Your task to perform on an android device: change the clock display to show seconds Image 0: 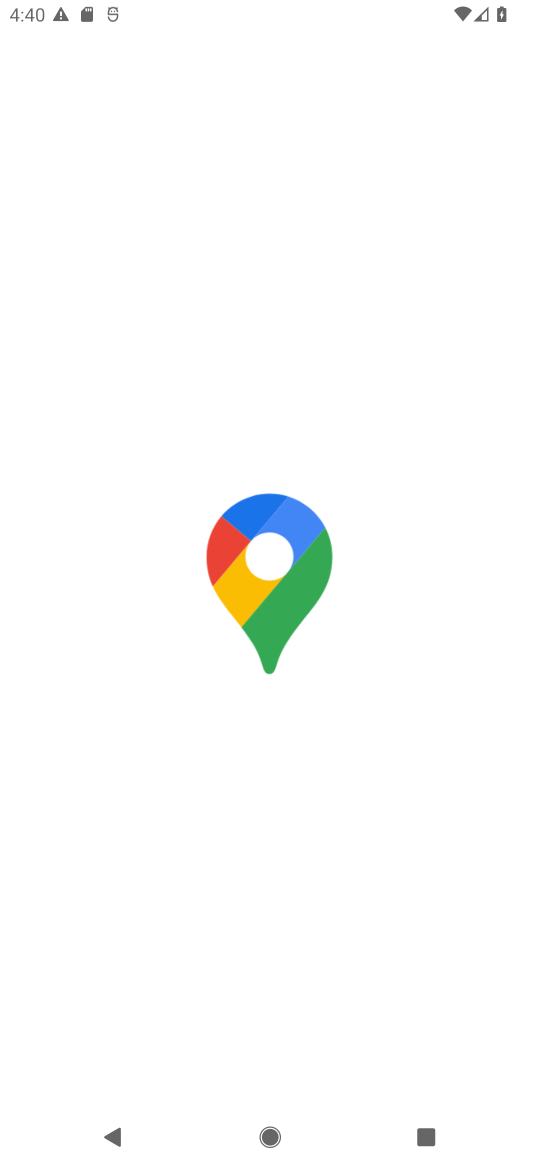
Step 0: press home button
Your task to perform on an android device: change the clock display to show seconds Image 1: 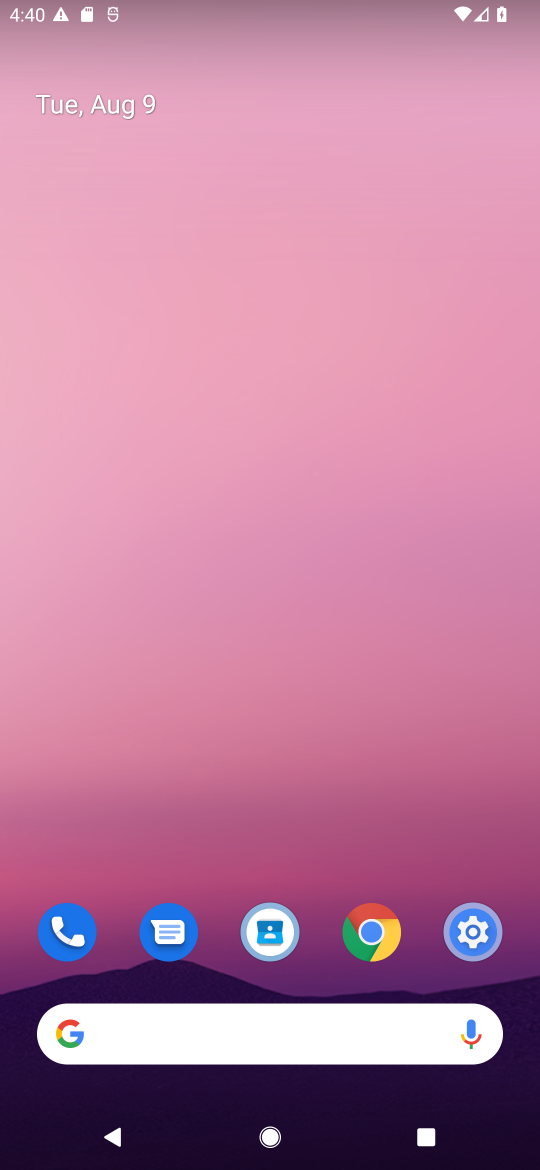
Step 1: drag from (234, 991) to (304, 56)
Your task to perform on an android device: change the clock display to show seconds Image 2: 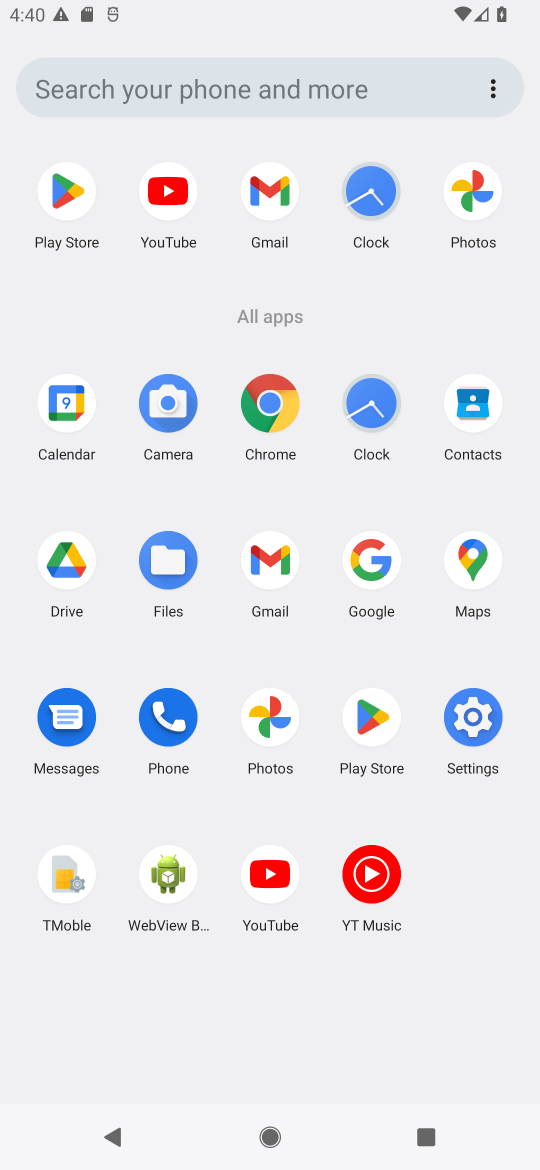
Step 2: click (371, 420)
Your task to perform on an android device: change the clock display to show seconds Image 3: 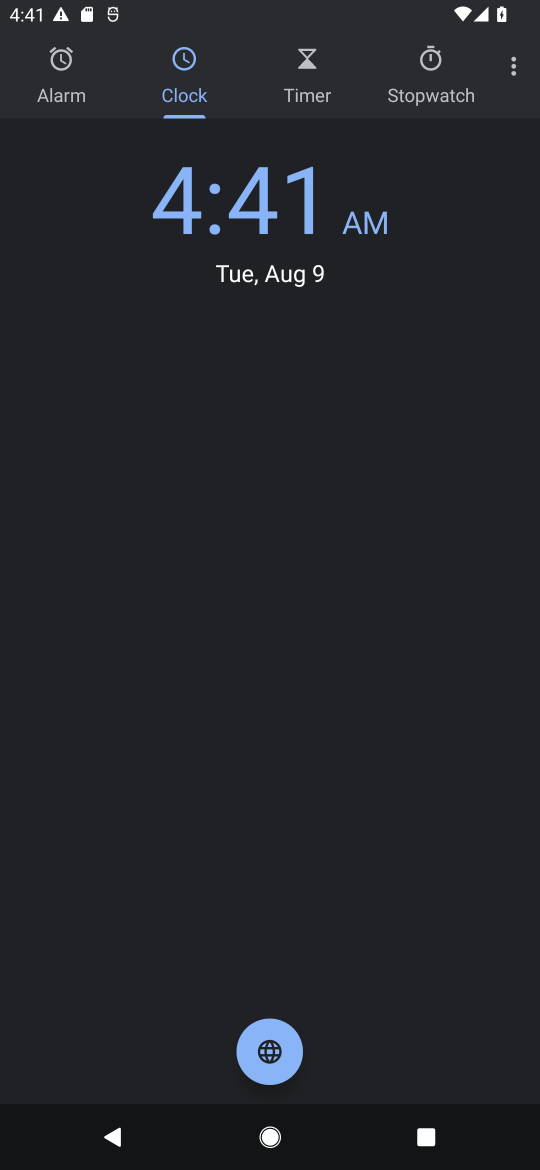
Step 3: click (501, 72)
Your task to perform on an android device: change the clock display to show seconds Image 4: 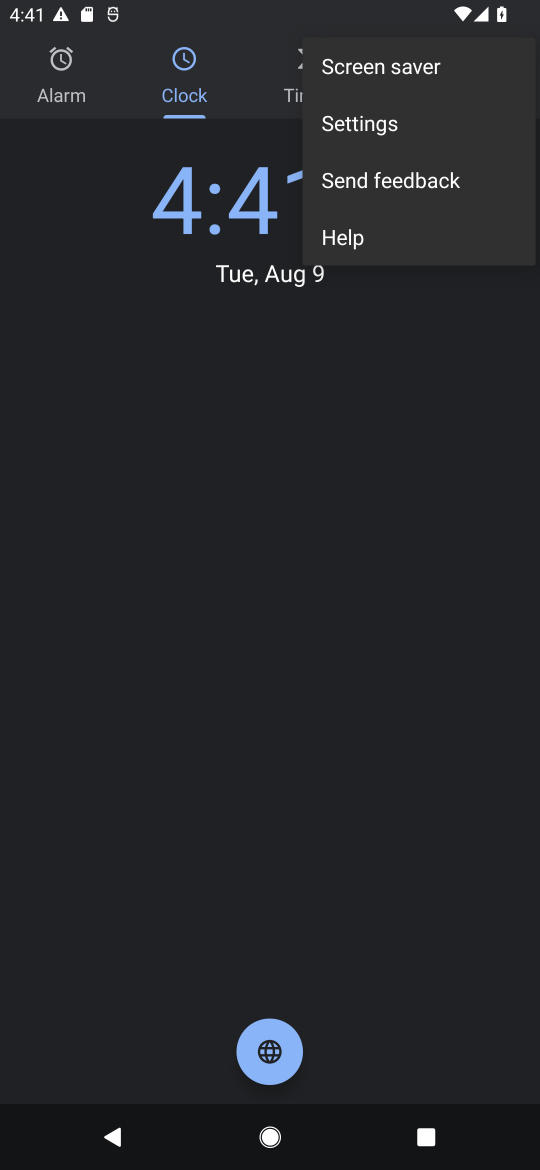
Step 4: click (379, 140)
Your task to perform on an android device: change the clock display to show seconds Image 5: 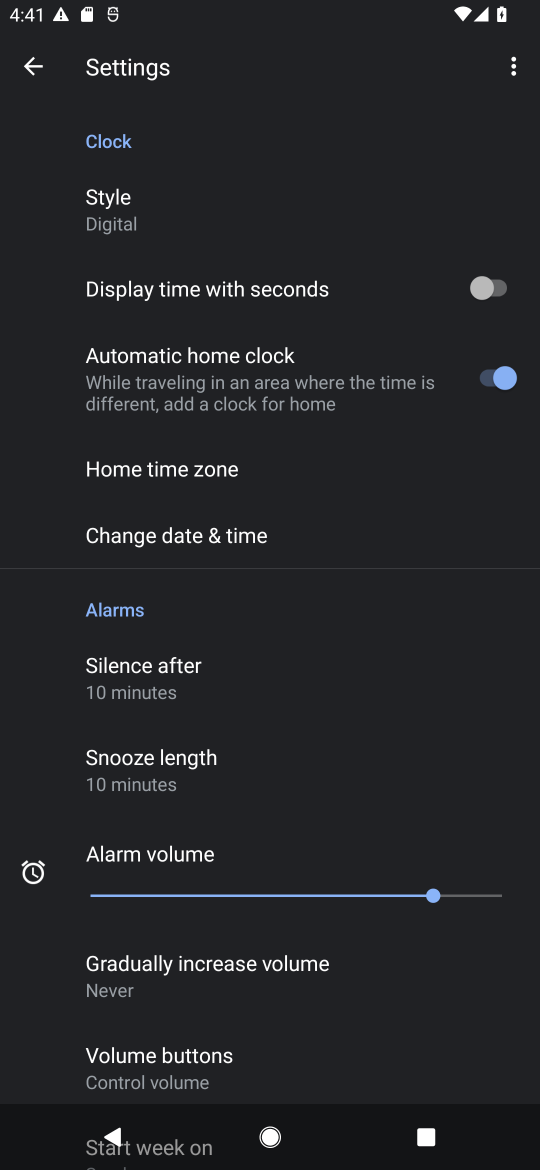
Step 5: click (165, 234)
Your task to perform on an android device: change the clock display to show seconds Image 6: 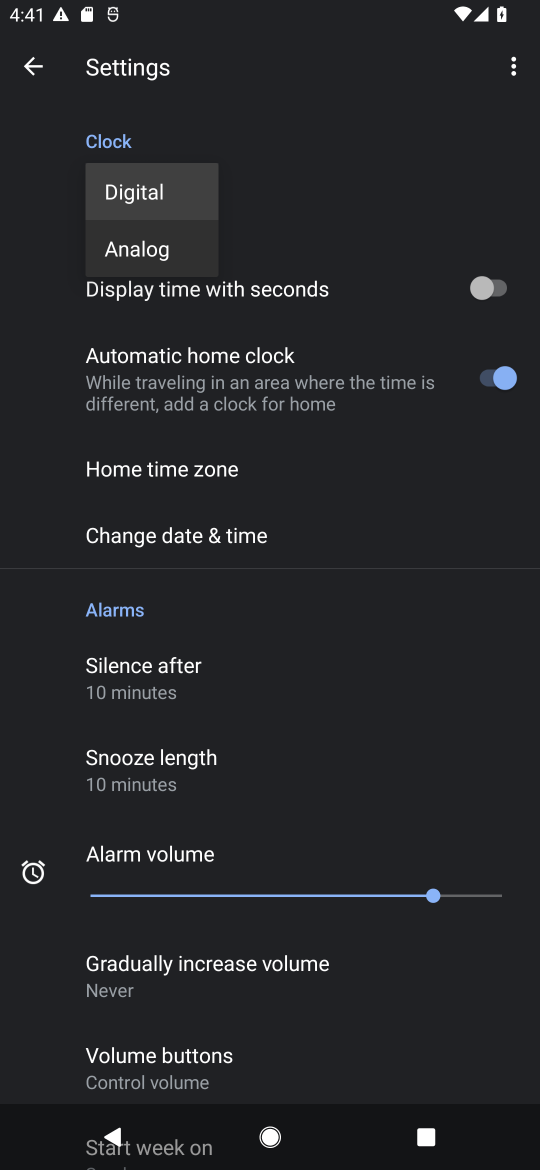
Step 6: click (164, 263)
Your task to perform on an android device: change the clock display to show seconds Image 7: 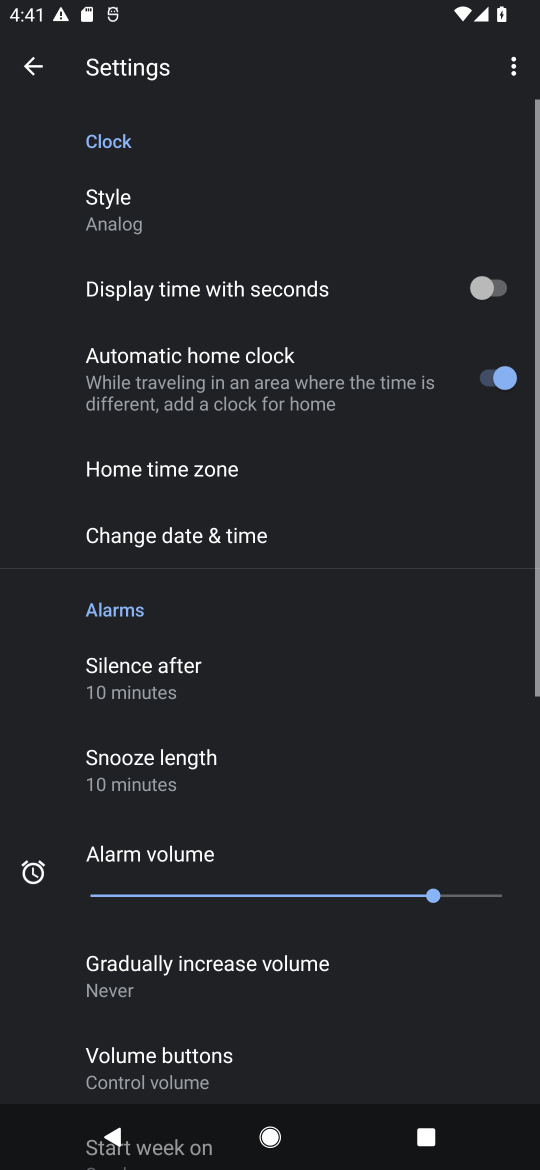
Step 7: click (508, 285)
Your task to perform on an android device: change the clock display to show seconds Image 8: 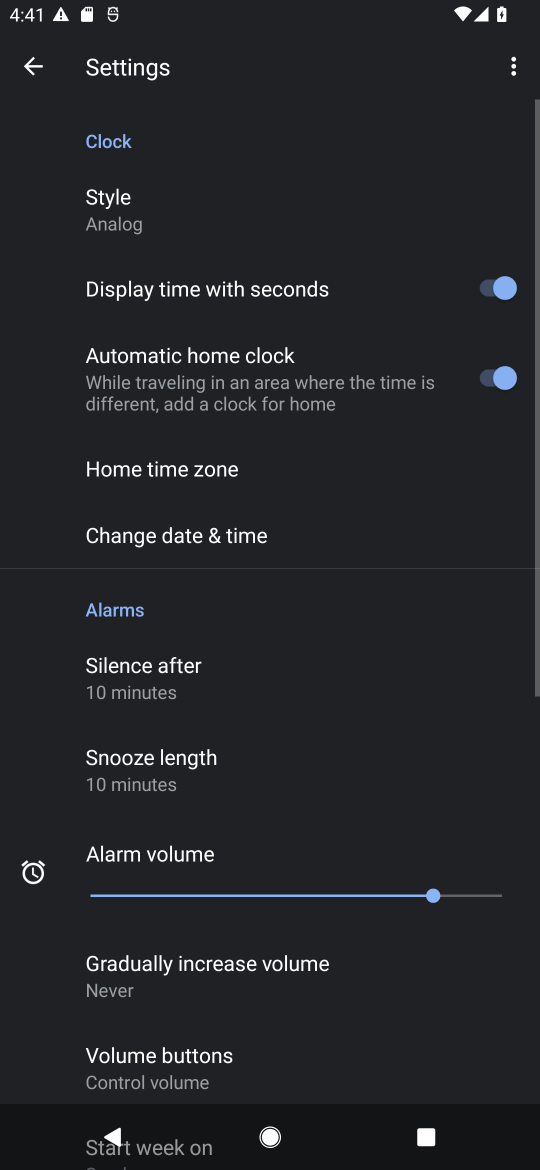
Step 8: task complete